Your task to perform on an android device: turn pop-ups on in chrome Image 0: 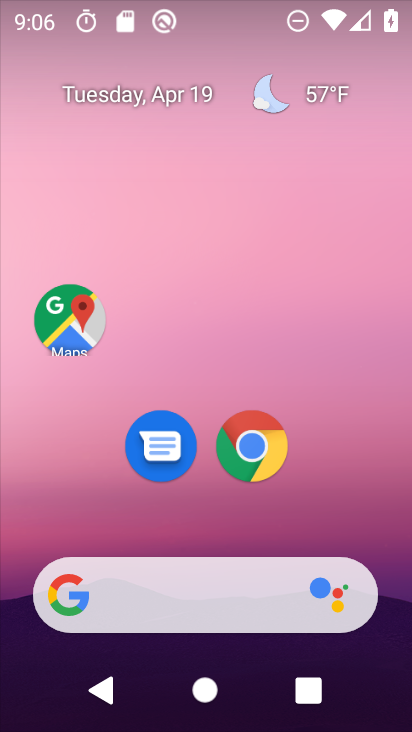
Step 0: click (264, 445)
Your task to perform on an android device: turn pop-ups on in chrome Image 1: 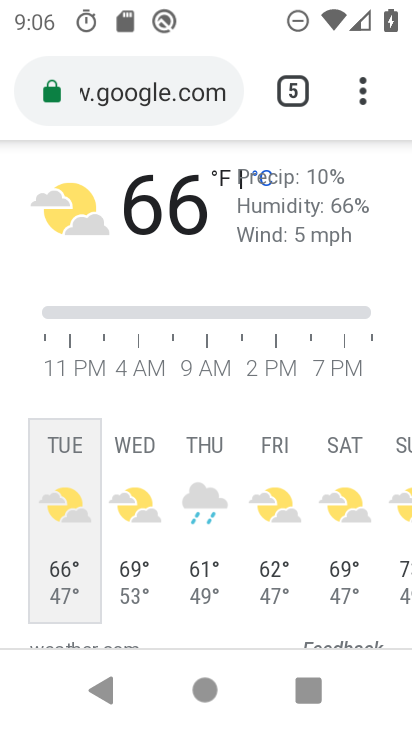
Step 1: click (363, 85)
Your task to perform on an android device: turn pop-ups on in chrome Image 2: 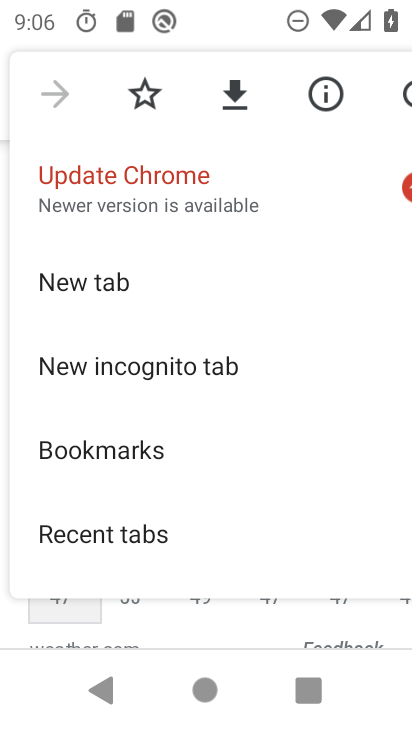
Step 2: drag from (148, 539) to (210, 262)
Your task to perform on an android device: turn pop-ups on in chrome Image 3: 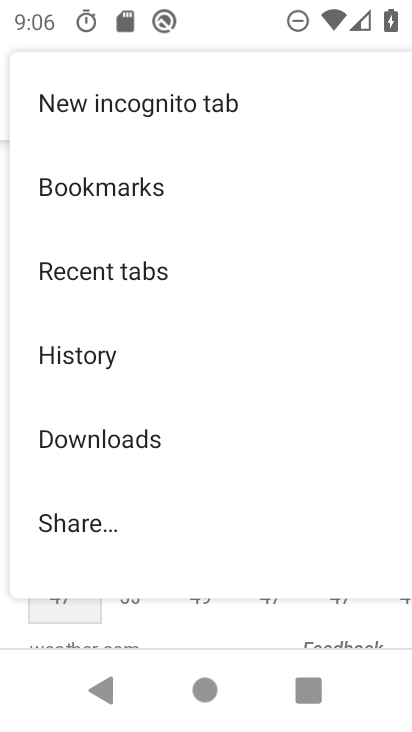
Step 3: drag from (126, 548) to (207, 285)
Your task to perform on an android device: turn pop-ups on in chrome Image 4: 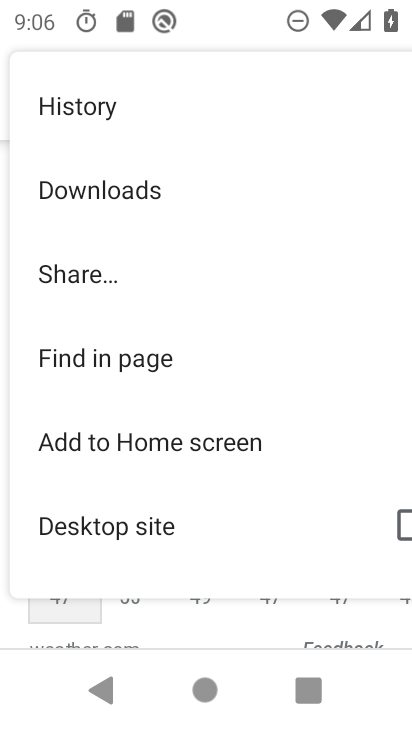
Step 4: drag from (137, 549) to (210, 302)
Your task to perform on an android device: turn pop-ups on in chrome Image 5: 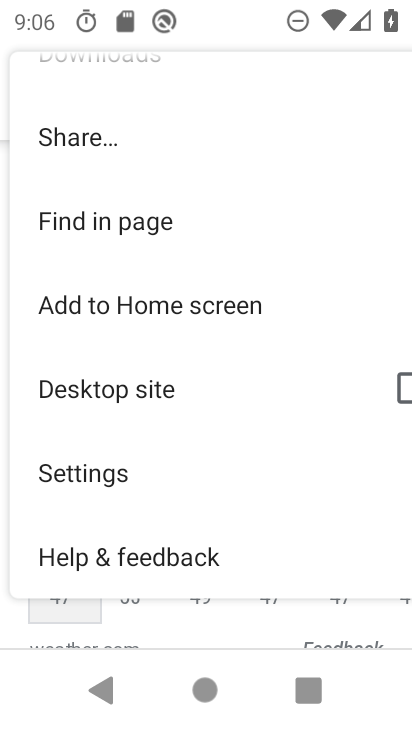
Step 5: click (114, 479)
Your task to perform on an android device: turn pop-ups on in chrome Image 6: 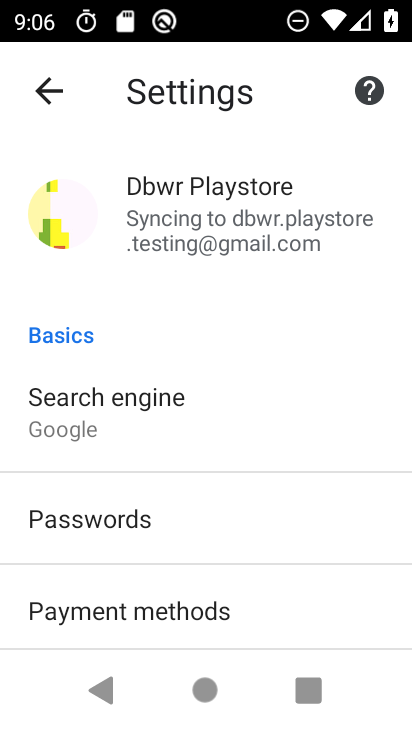
Step 6: drag from (121, 619) to (109, 249)
Your task to perform on an android device: turn pop-ups on in chrome Image 7: 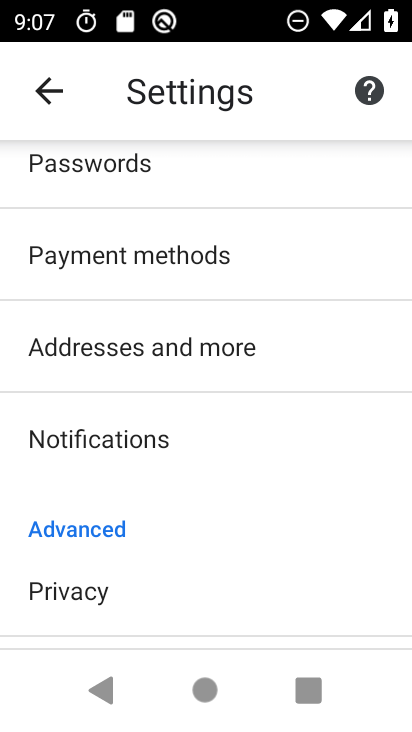
Step 7: drag from (103, 554) to (129, 250)
Your task to perform on an android device: turn pop-ups on in chrome Image 8: 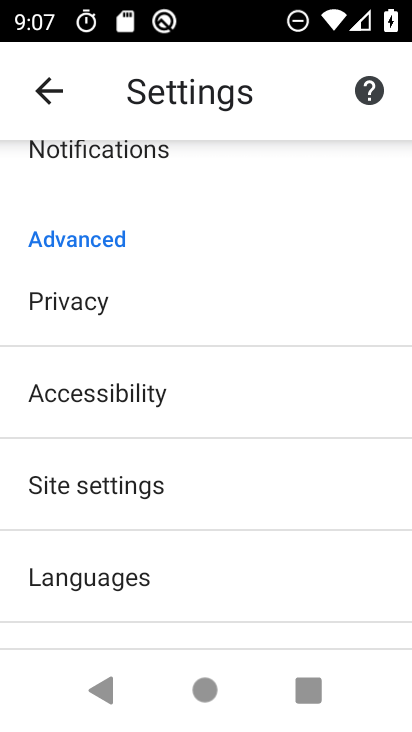
Step 8: click (95, 489)
Your task to perform on an android device: turn pop-ups on in chrome Image 9: 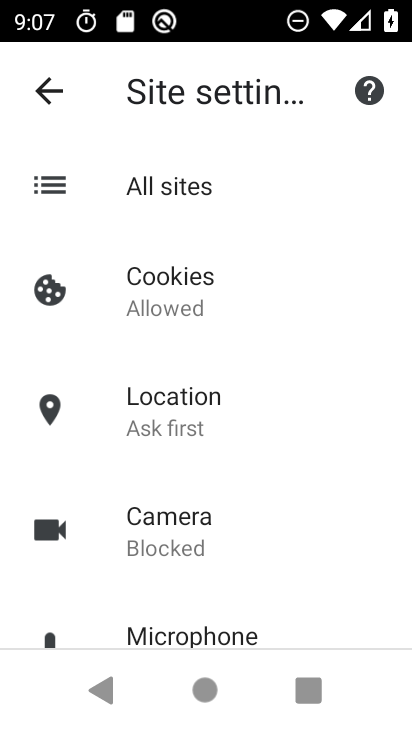
Step 9: drag from (174, 616) to (180, 369)
Your task to perform on an android device: turn pop-ups on in chrome Image 10: 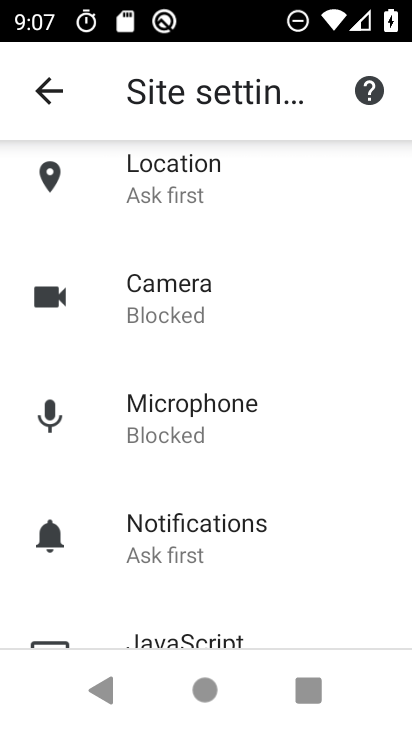
Step 10: drag from (285, 601) to (278, 268)
Your task to perform on an android device: turn pop-ups on in chrome Image 11: 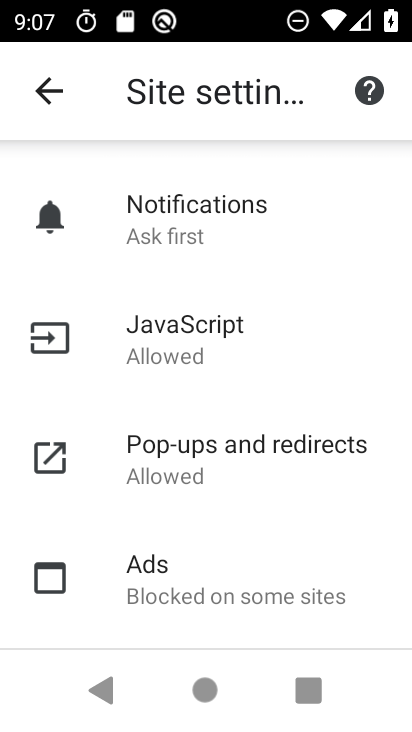
Step 11: click (182, 465)
Your task to perform on an android device: turn pop-ups on in chrome Image 12: 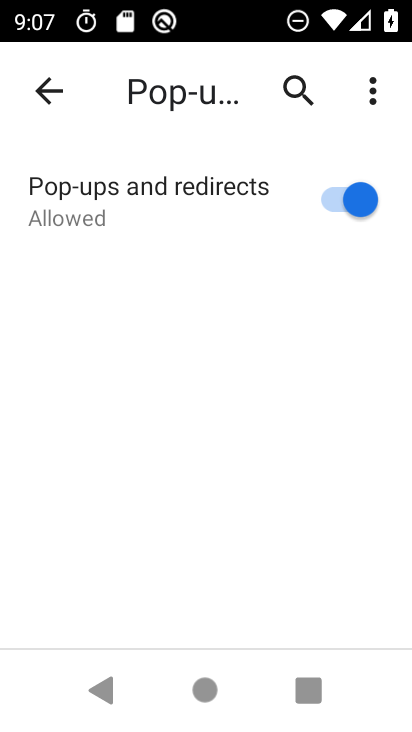
Step 12: task complete